Your task to perform on an android device: open device folders in google photos Image 0: 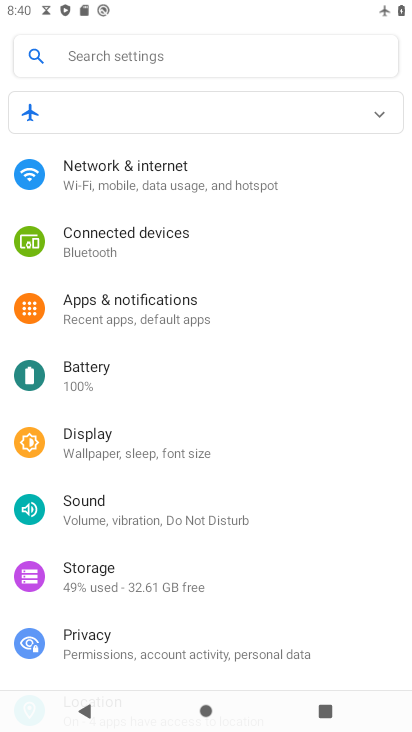
Step 0: press home button
Your task to perform on an android device: open device folders in google photos Image 1: 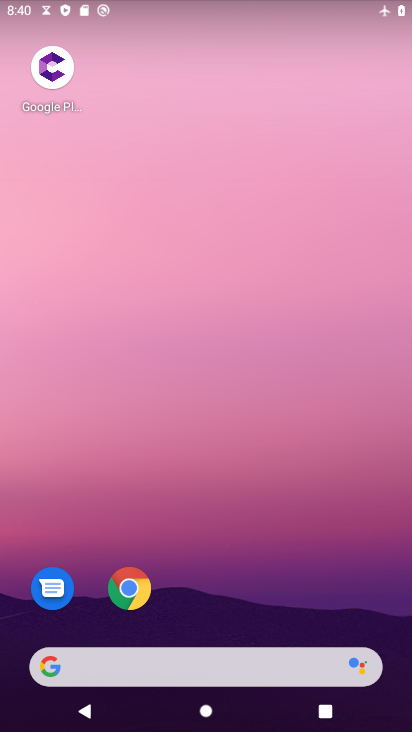
Step 1: drag from (208, 626) to (263, 91)
Your task to perform on an android device: open device folders in google photos Image 2: 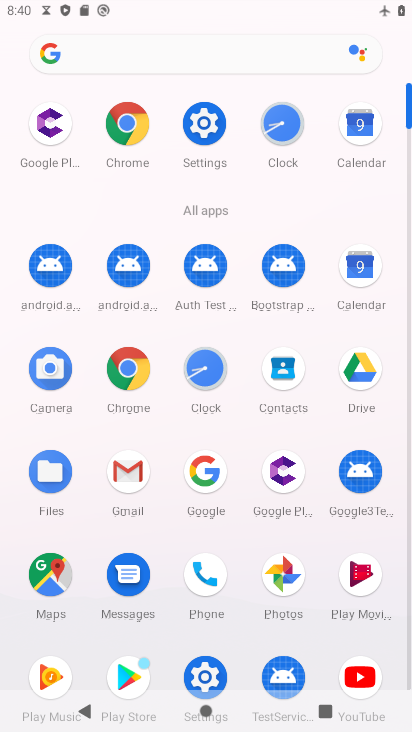
Step 2: click (279, 583)
Your task to perform on an android device: open device folders in google photos Image 3: 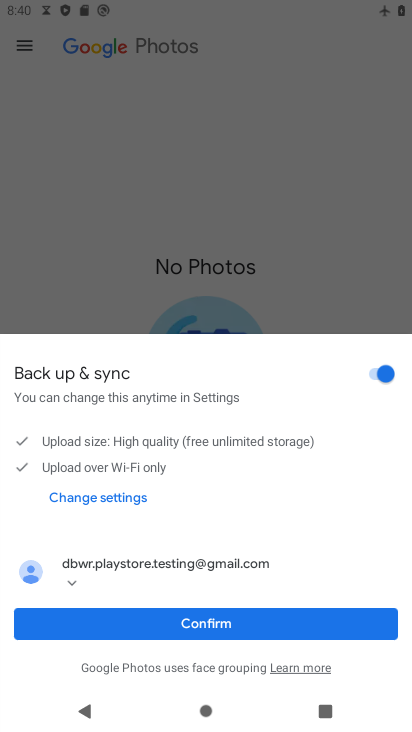
Step 3: click (158, 616)
Your task to perform on an android device: open device folders in google photos Image 4: 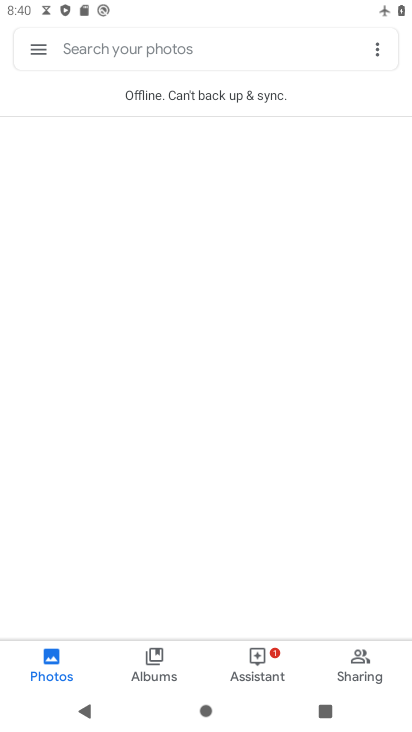
Step 4: click (38, 56)
Your task to perform on an android device: open device folders in google photos Image 5: 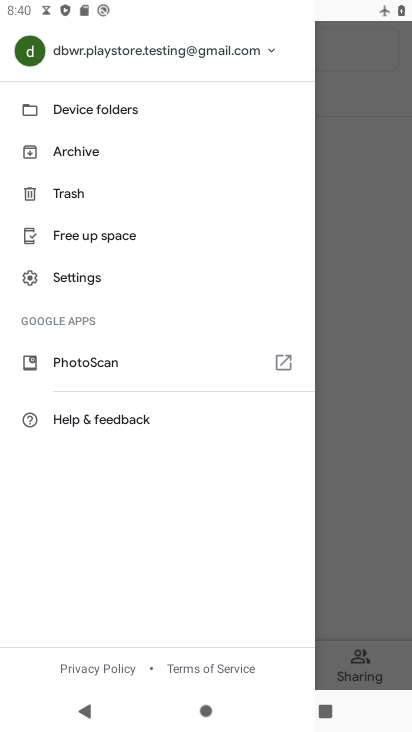
Step 5: click (112, 113)
Your task to perform on an android device: open device folders in google photos Image 6: 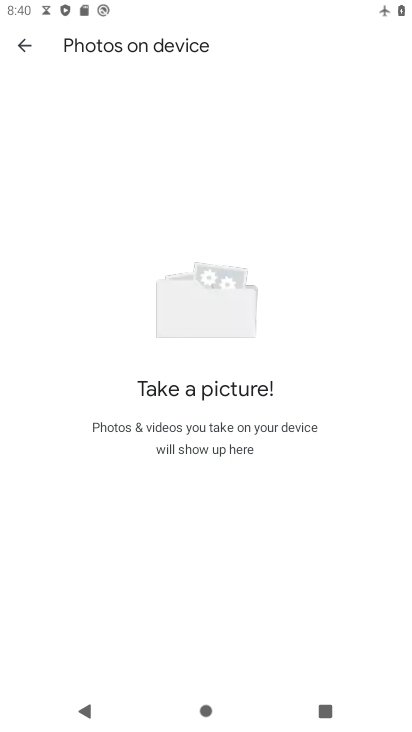
Step 6: task complete